Your task to perform on an android device: open app "Spotify" Image 0: 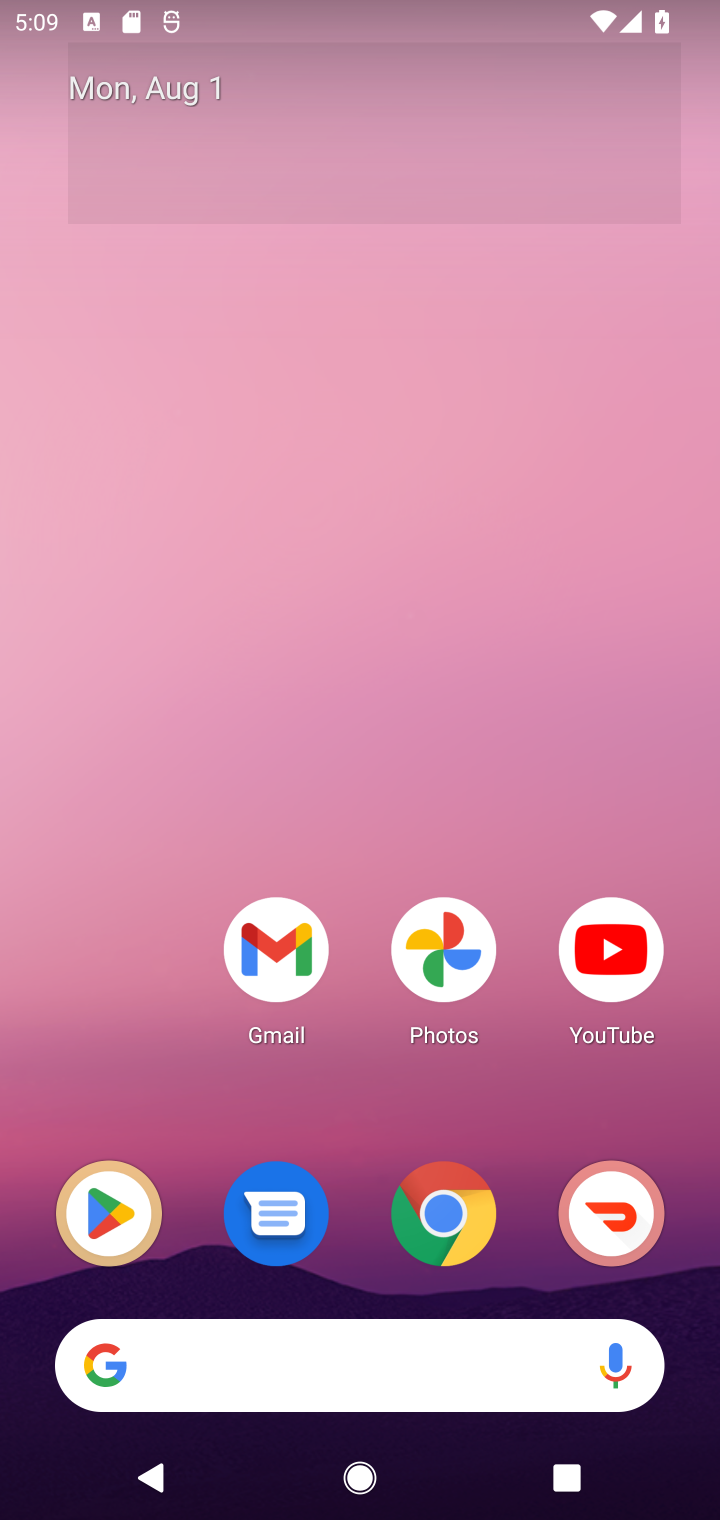
Step 0: drag from (532, 913) to (544, 149)
Your task to perform on an android device: open app "Spotify" Image 1: 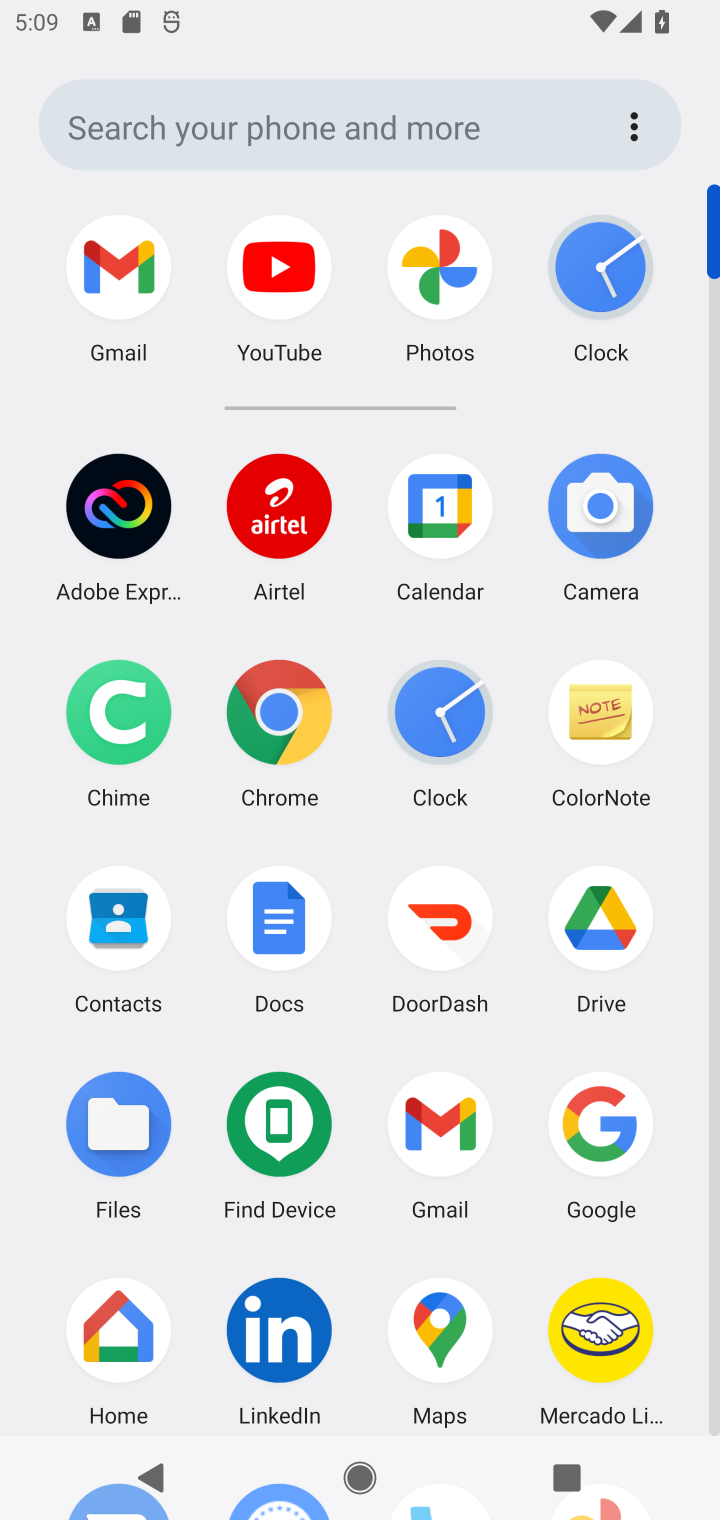
Step 1: drag from (531, 1119) to (577, 462)
Your task to perform on an android device: open app "Spotify" Image 2: 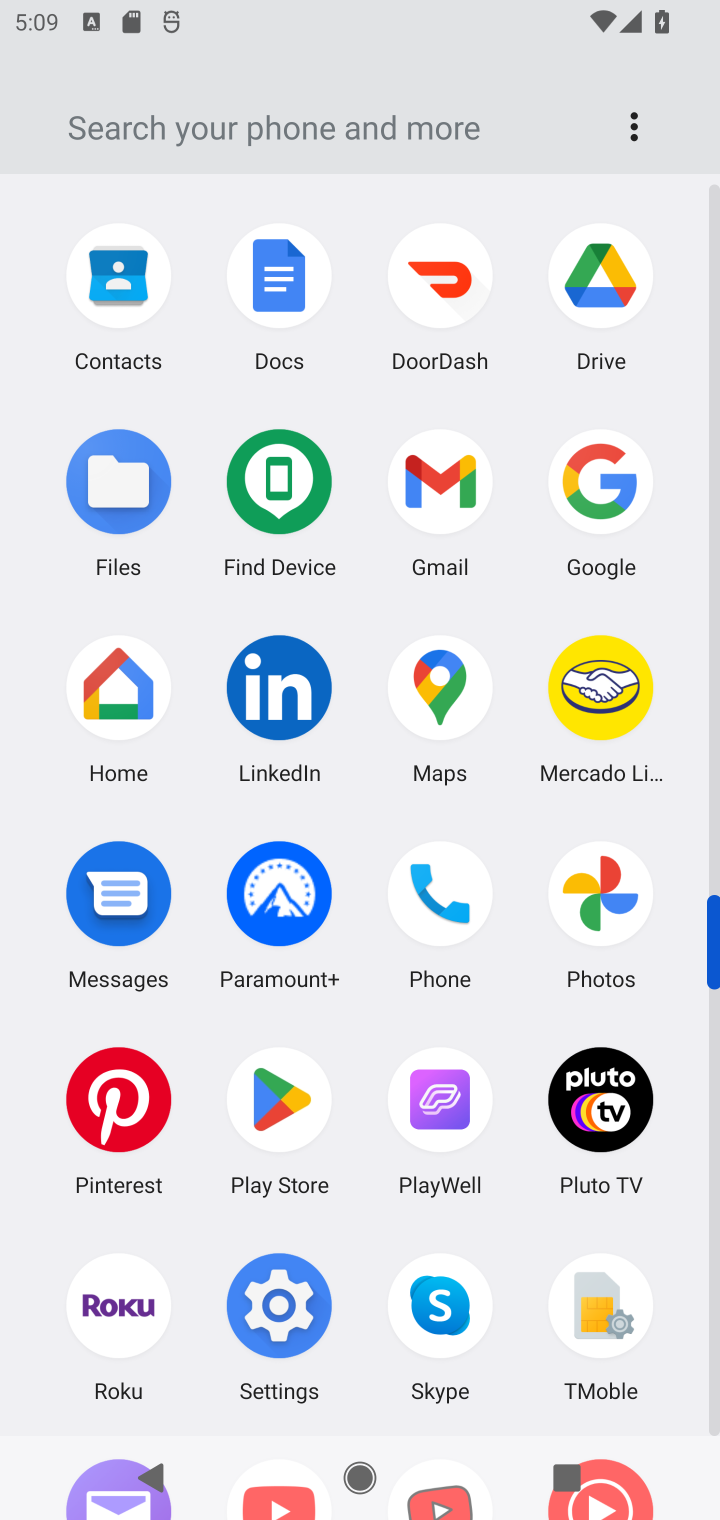
Step 2: click (296, 1094)
Your task to perform on an android device: open app "Spotify" Image 3: 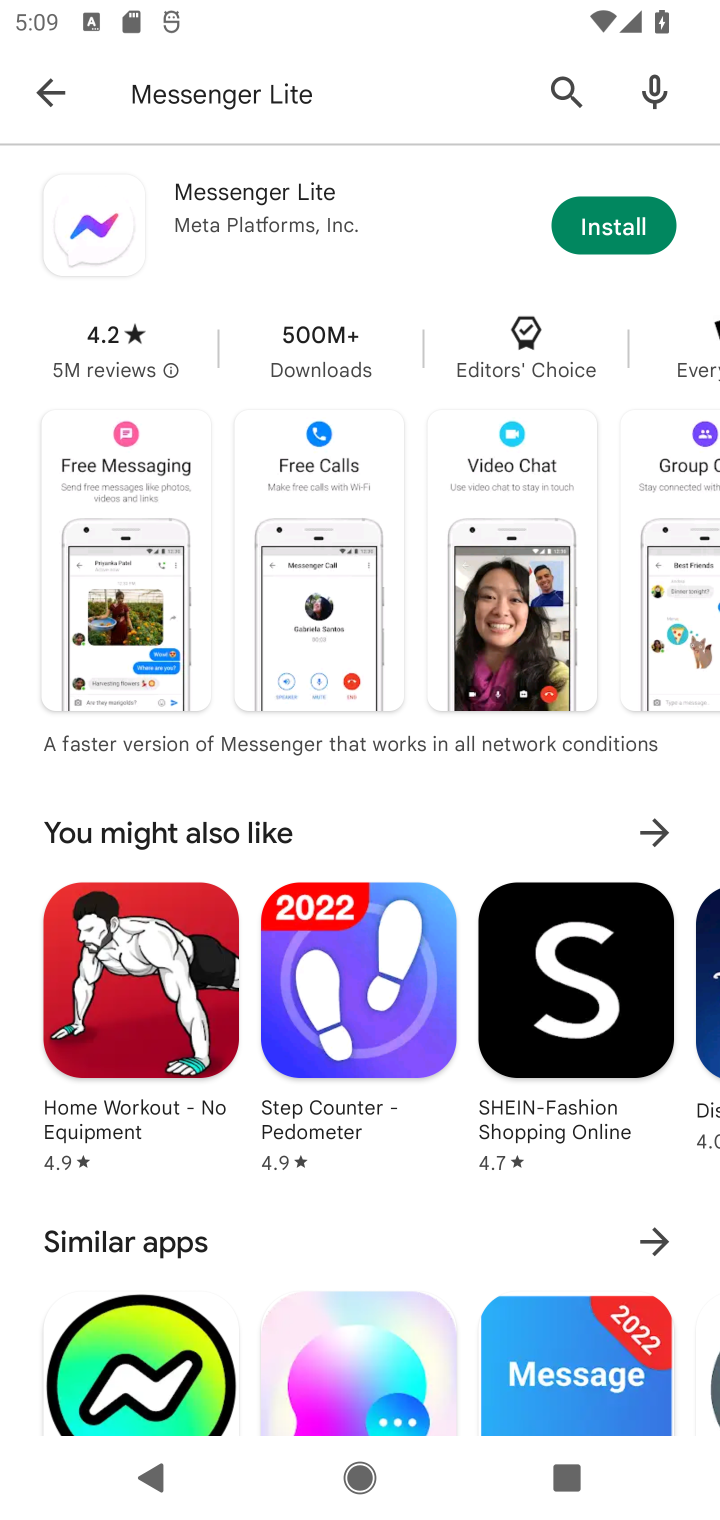
Step 3: click (435, 104)
Your task to perform on an android device: open app "Spotify" Image 4: 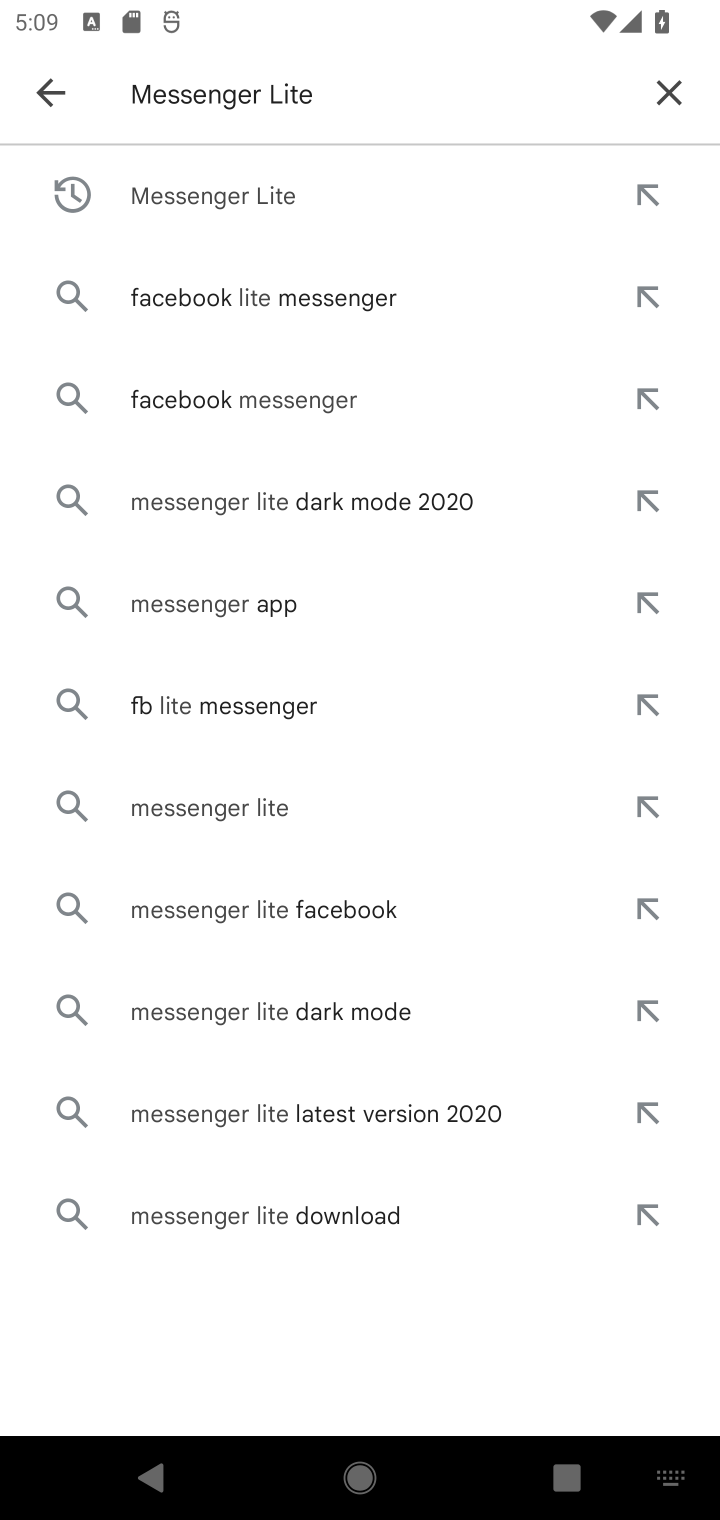
Step 4: click (672, 75)
Your task to perform on an android device: open app "Spotify" Image 5: 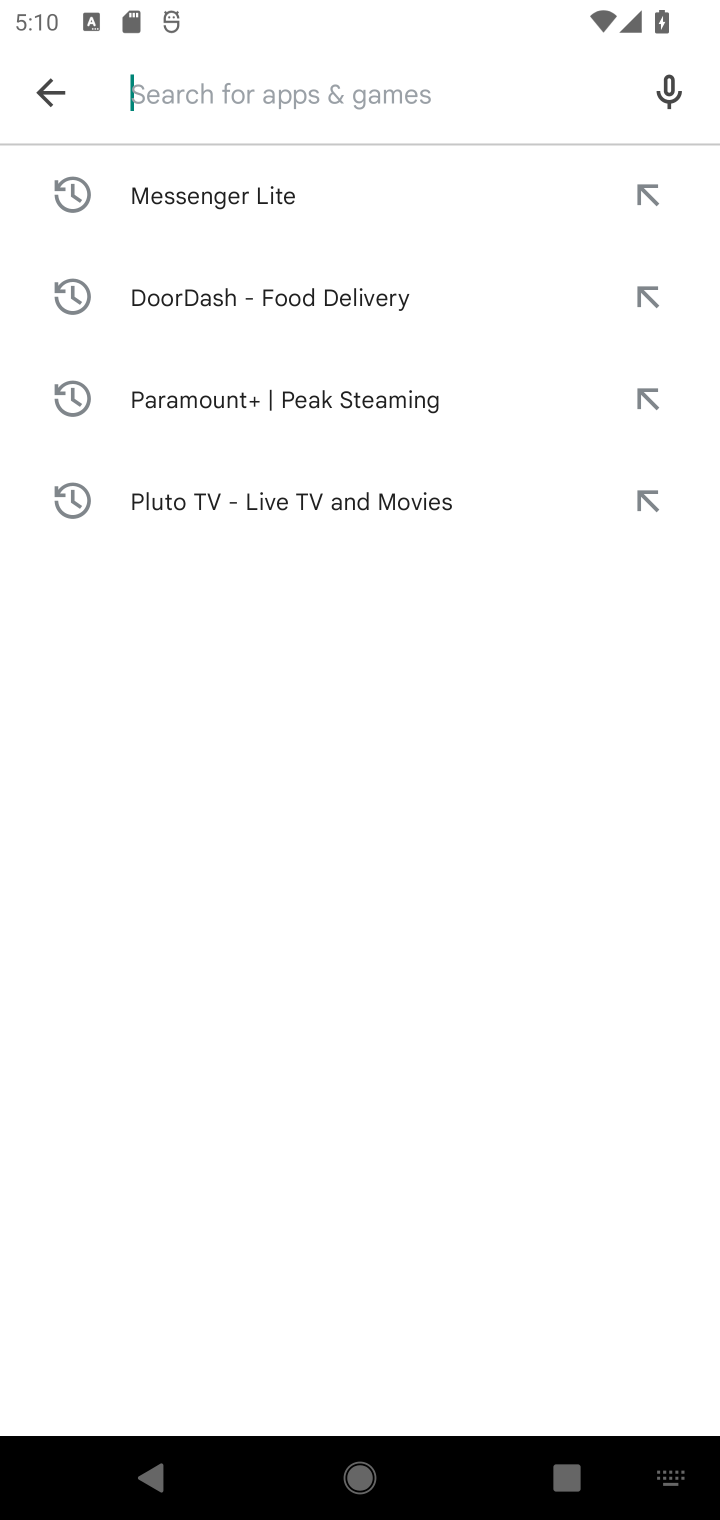
Step 5: type "Spotify"
Your task to perform on an android device: open app "Spotify" Image 6: 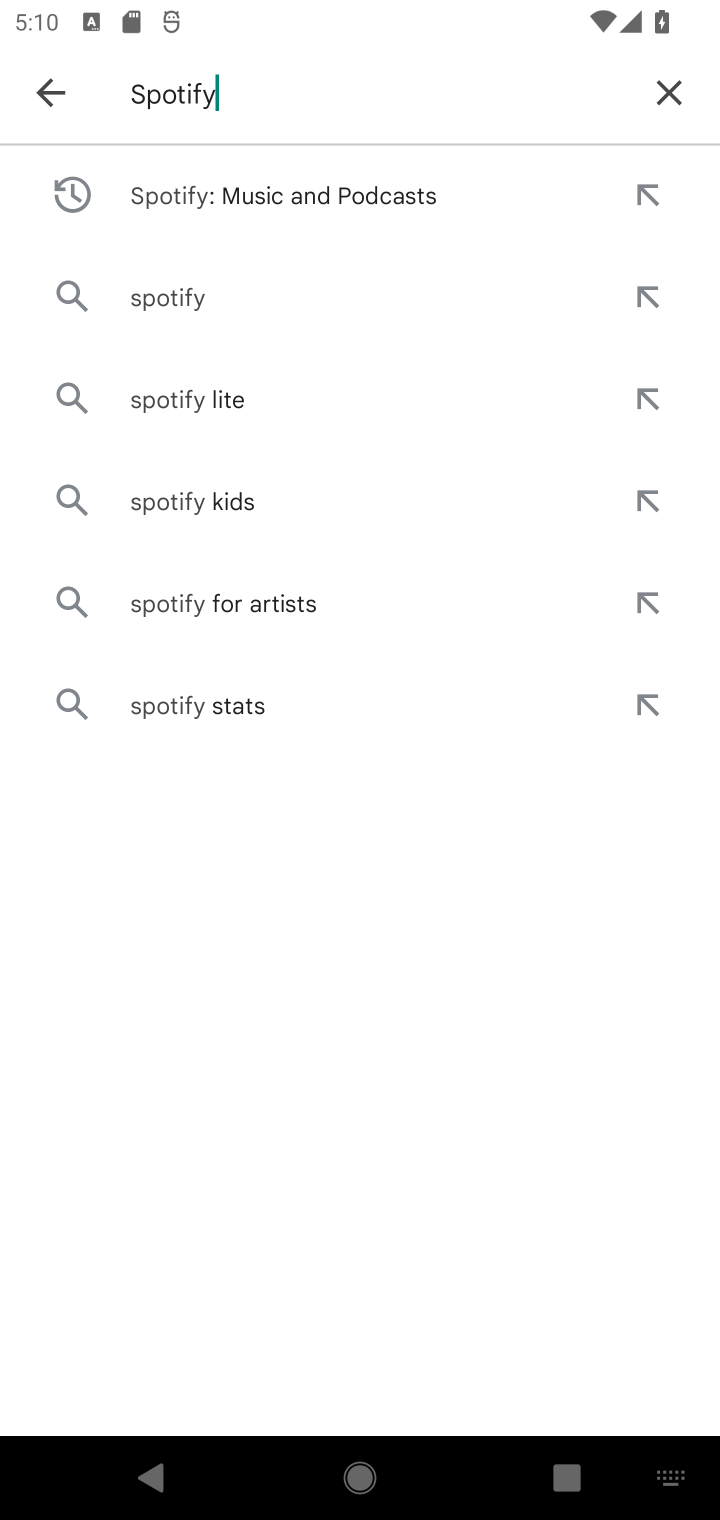
Step 6: press enter
Your task to perform on an android device: open app "Spotify" Image 7: 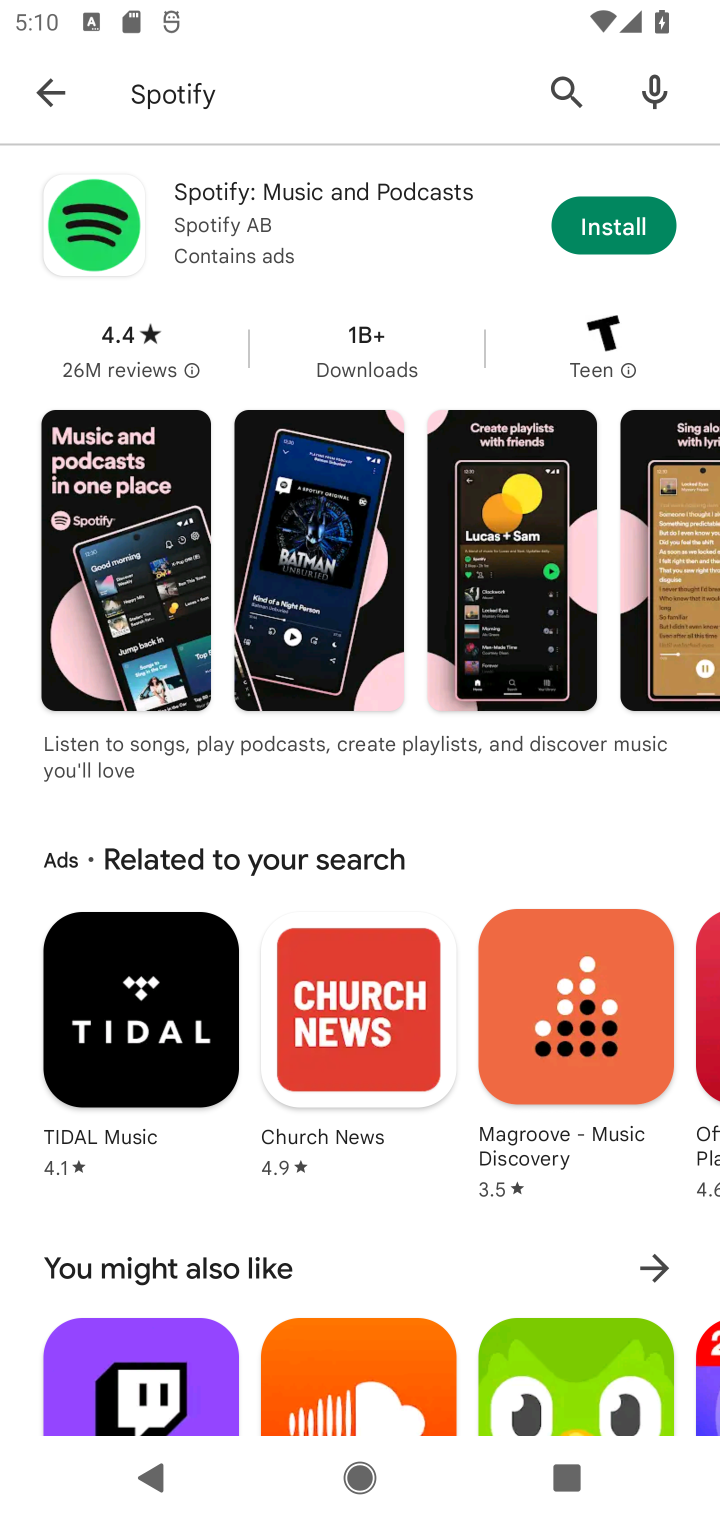
Step 7: click (417, 252)
Your task to perform on an android device: open app "Spotify" Image 8: 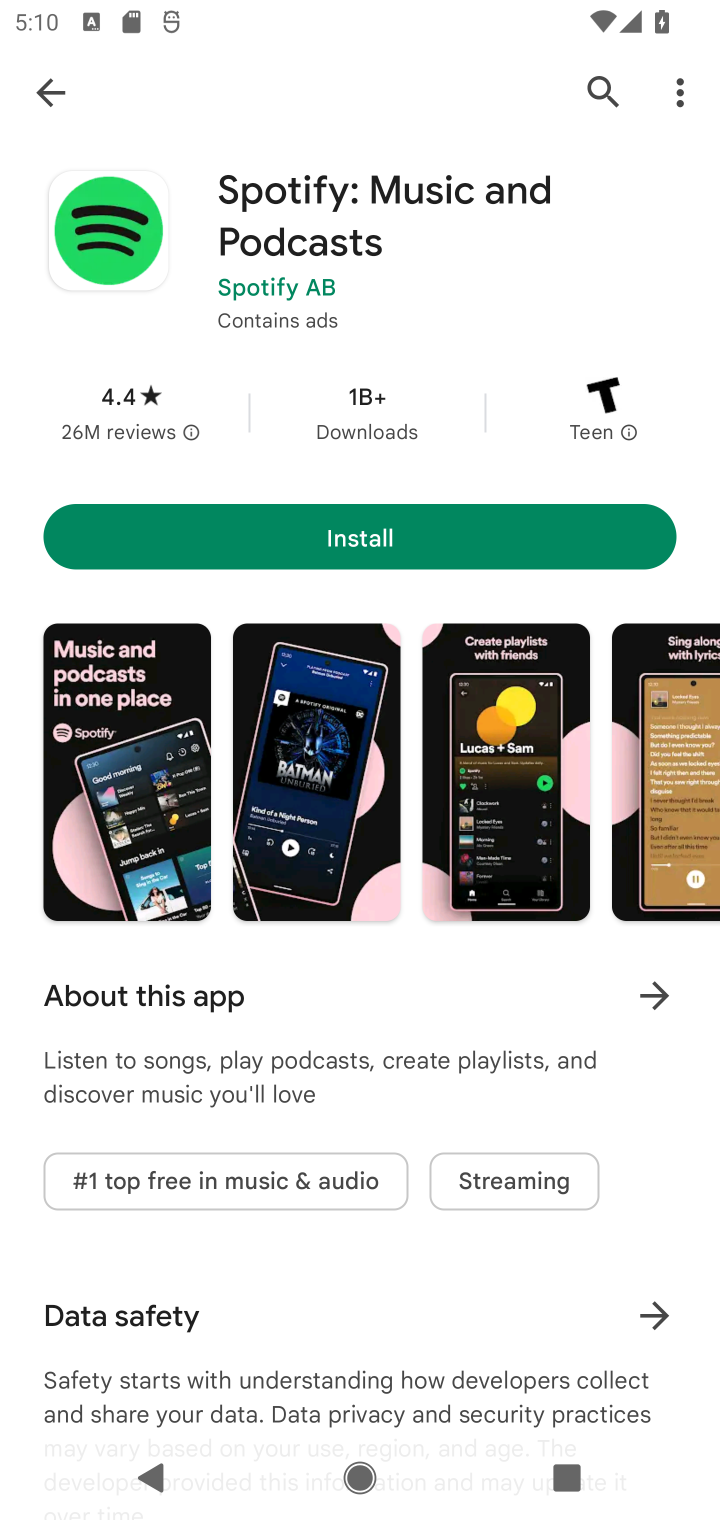
Step 8: task complete